Your task to perform on an android device: empty trash in the gmail app Image 0: 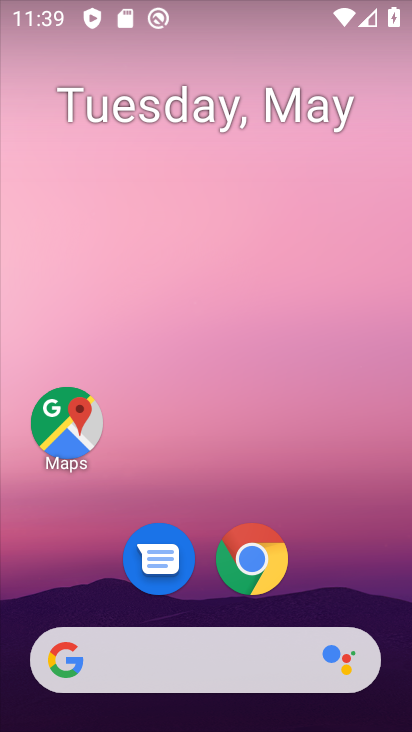
Step 0: drag from (352, 588) to (296, 53)
Your task to perform on an android device: empty trash in the gmail app Image 1: 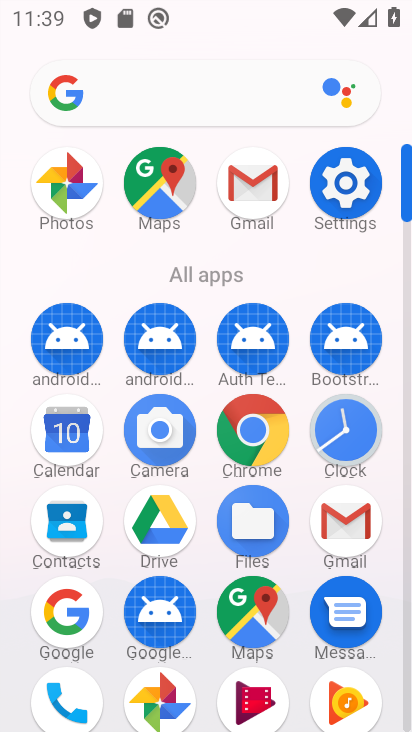
Step 1: click (251, 193)
Your task to perform on an android device: empty trash in the gmail app Image 2: 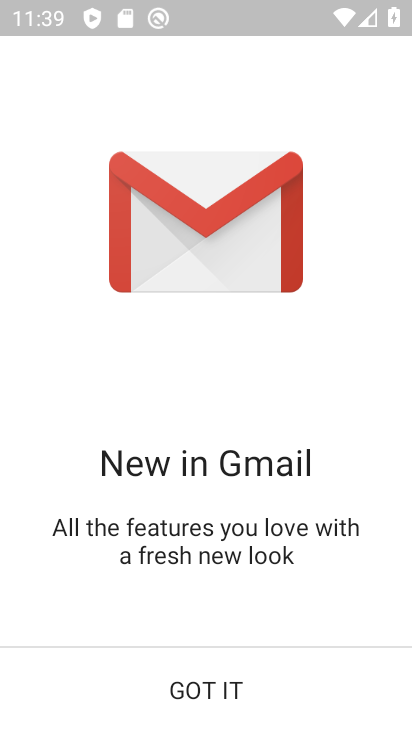
Step 2: click (202, 684)
Your task to perform on an android device: empty trash in the gmail app Image 3: 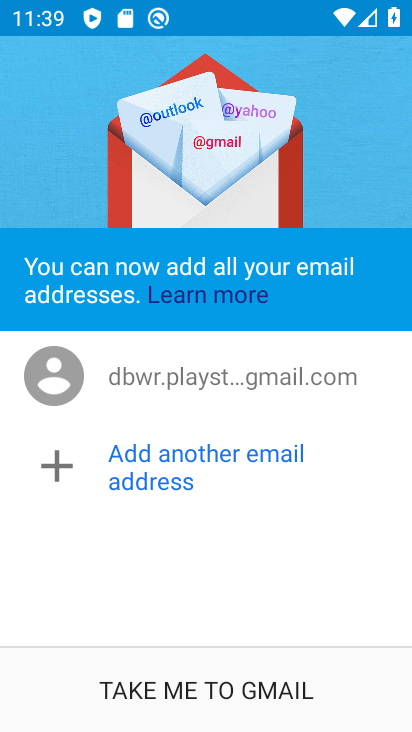
Step 3: click (202, 684)
Your task to perform on an android device: empty trash in the gmail app Image 4: 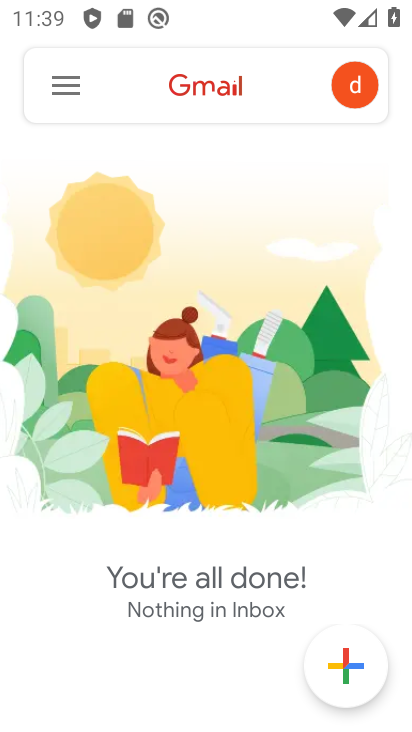
Step 4: click (46, 81)
Your task to perform on an android device: empty trash in the gmail app Image 5: 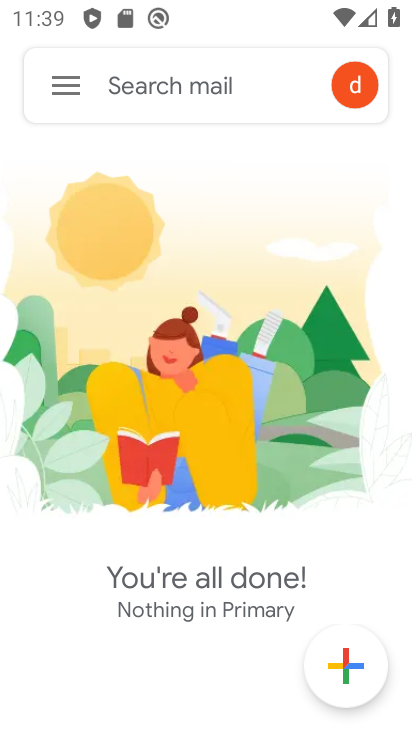
Step 5: click (63, 90)
Your task to perform on an android device: empty trash in the gmail app Image 6: 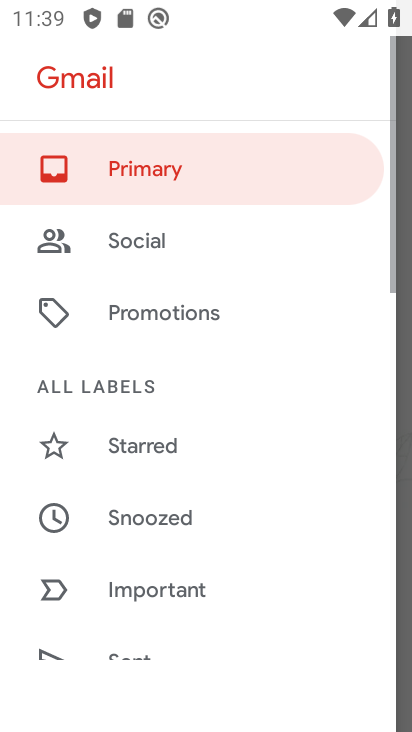
Step 6: drag from (131, 555) to (183, 240)
Your task to perform on an android device: empty trash in the gmail app Image 7: 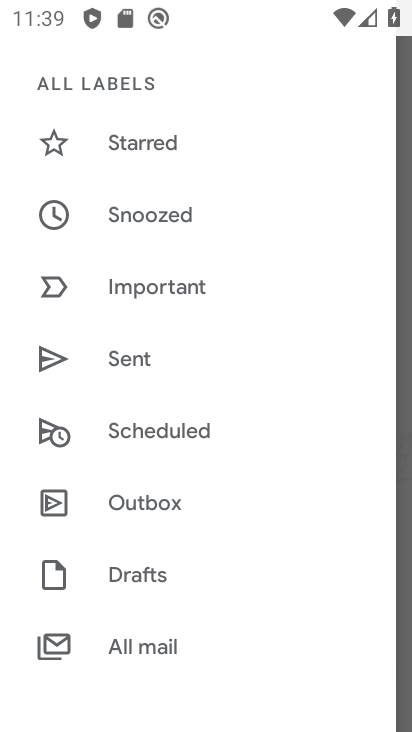
Step 7: drag from (157, 617) to (166, 357)
Your task to perform on an android device: empty trash in the gmail app Image 8: 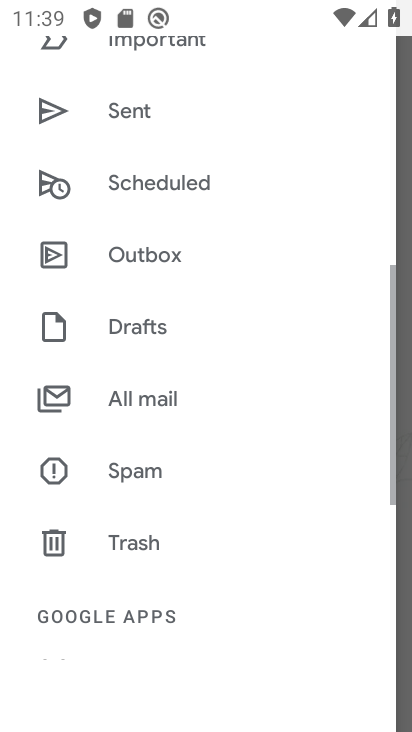
Step 8: click (156, 529)
Your task to perform on an android device: empty trash in the gmail app Image 9: 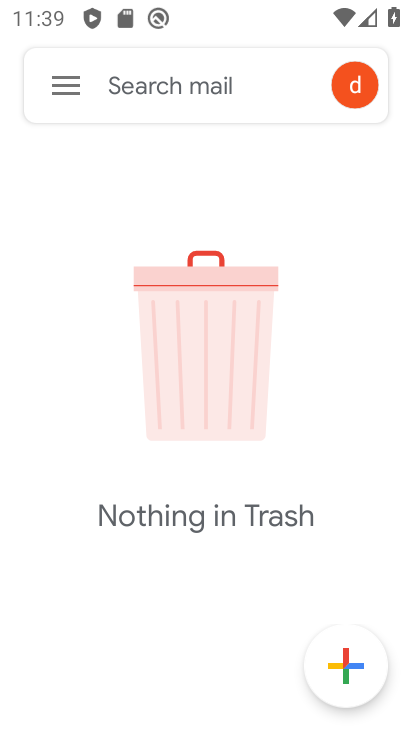
Step 9: task complete